Your task to perform on an android device: What's the news in Pakistan? Image 0: 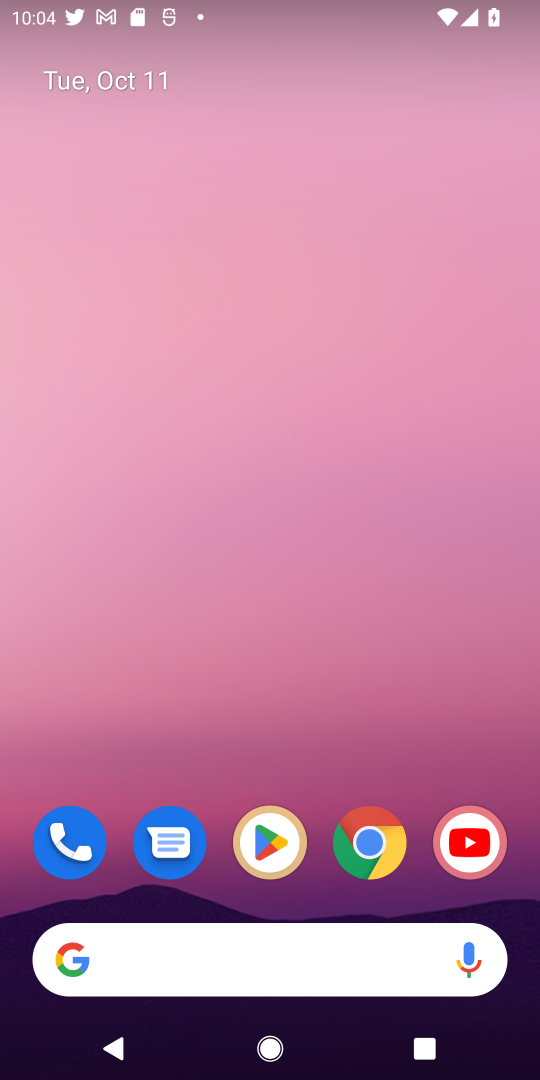
Step 0: click (356, 852)
Your task to perform on an android device: What's the news in Pakistan? Image 1: 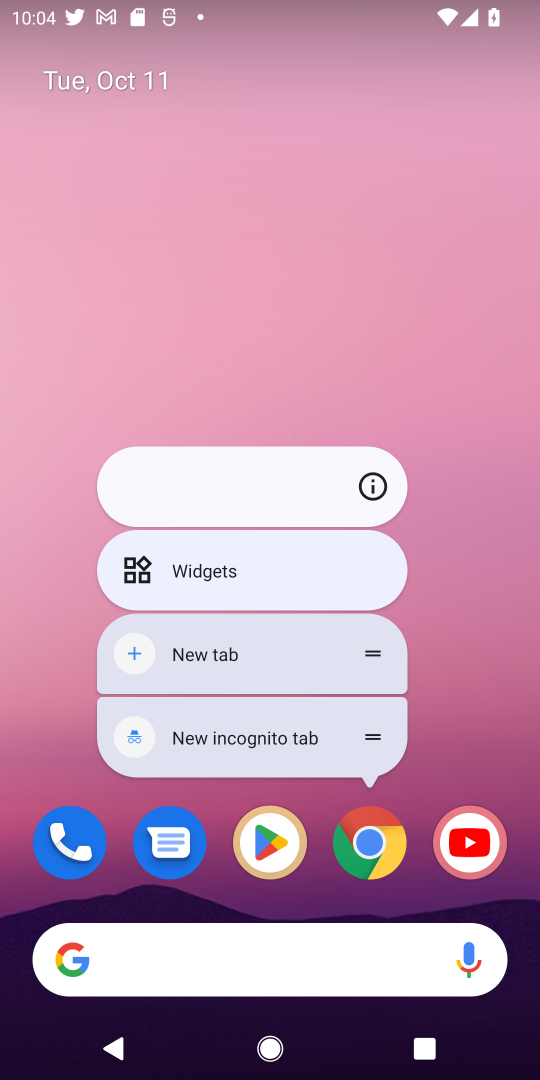
Step 1: click (376, 867)
Your task to perform on an android device: What's the news in Pakistan? Image 2: 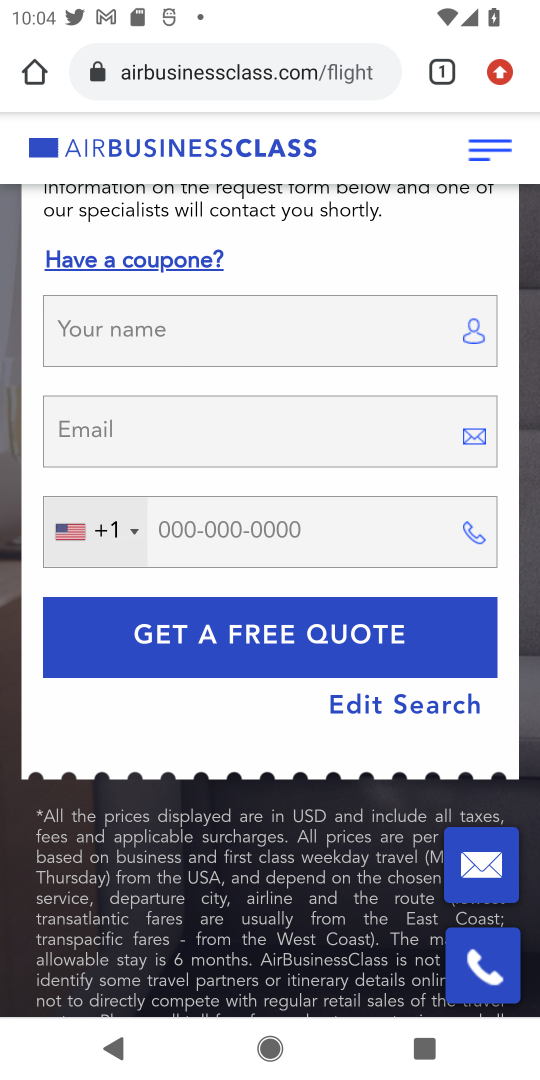
Step 2: click (215, 70)
Your task to perform on an android device: What's the news in Pakistan? Image 3: 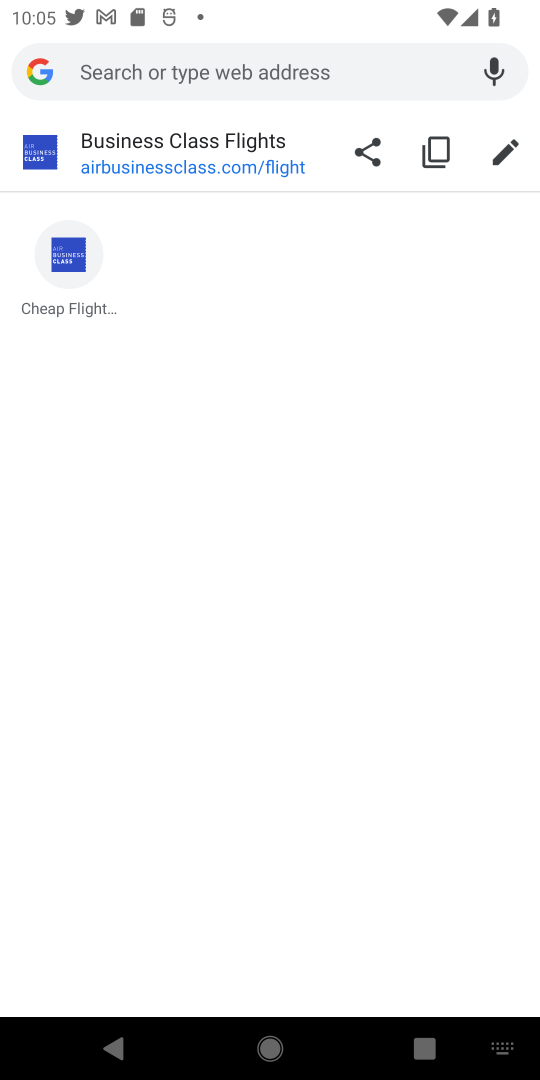
Step 3: type "news in pakistan"
Your task to perform on an android device: What's the news in Pakistan? Image 4: 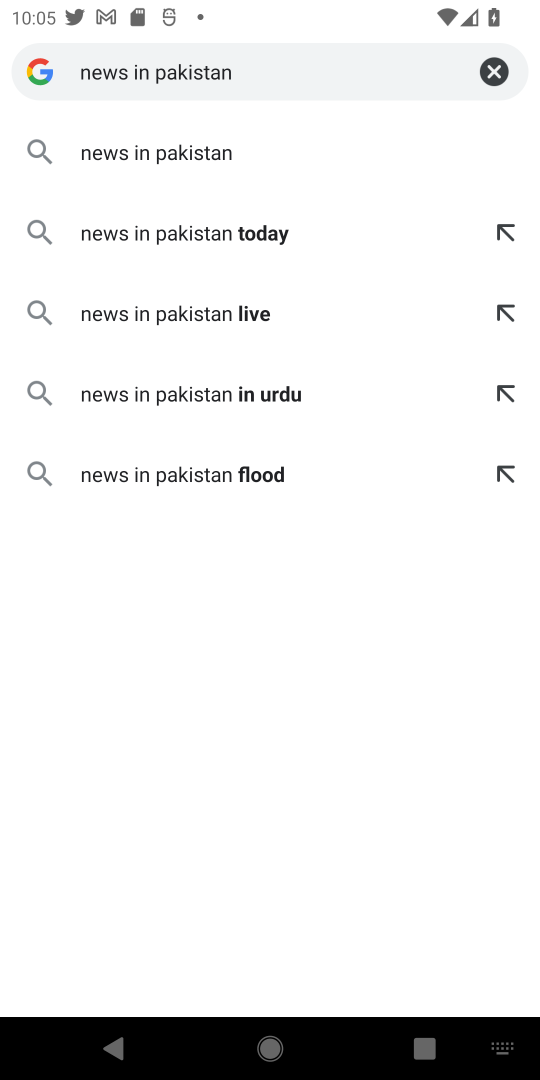
Step 4: click (178, 160)
Your task to perform on an android device: What's the news in Pakistan? Image 5: 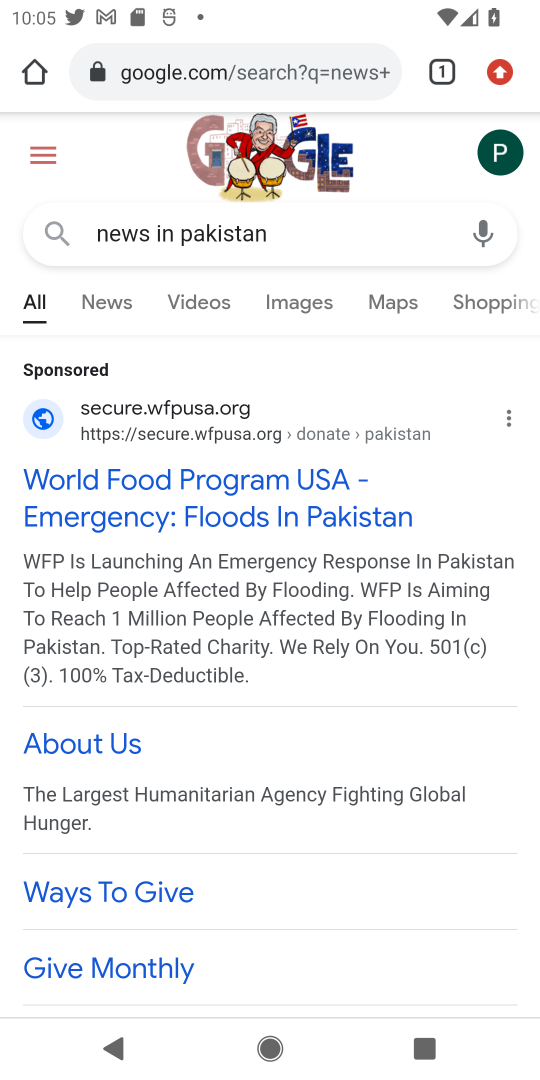
Step 5: drag from (205, 819) to (343, 207)
Your task to perform on an android device: What's the news in Pakistan? Image 6: 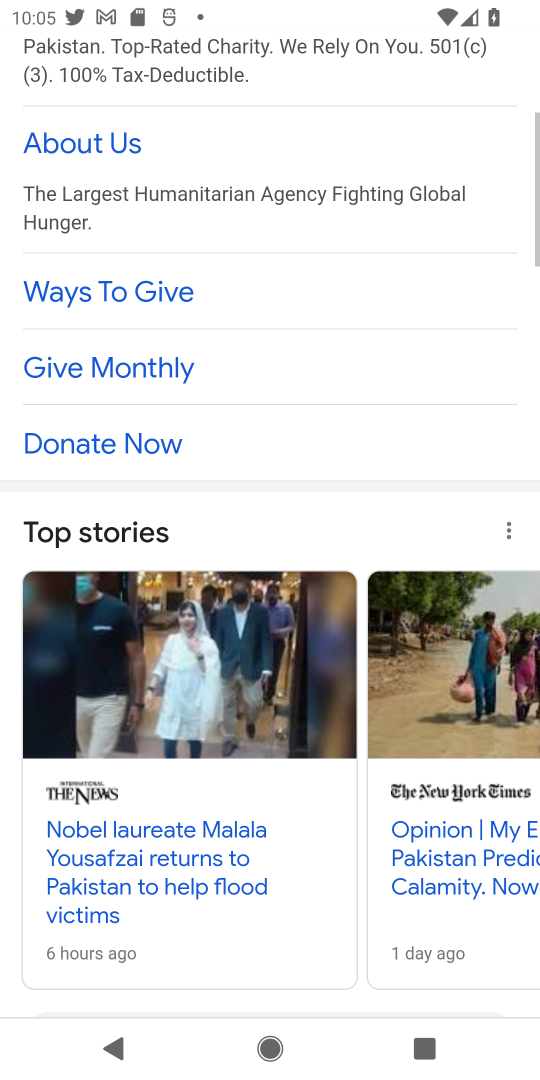
Step 6: drag from (227, 773) to (303, 260)
Your task to perform on an android device: What's the news in Pakistan? Image 7: 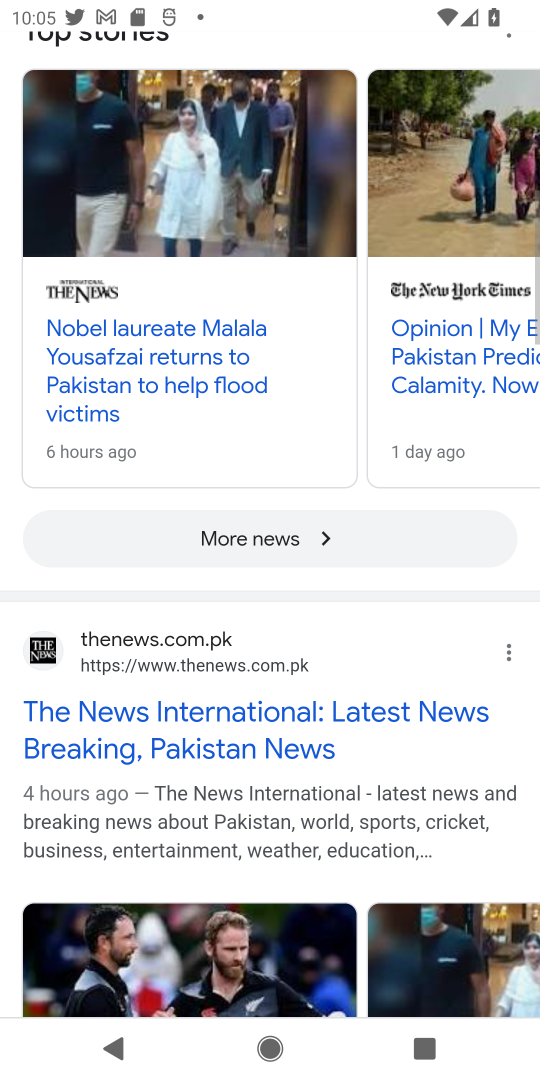
Step 7: drag from (235, 741) to (251, 345)
Your task to perform on an android device: What's the news in Pakistan? Image 8: 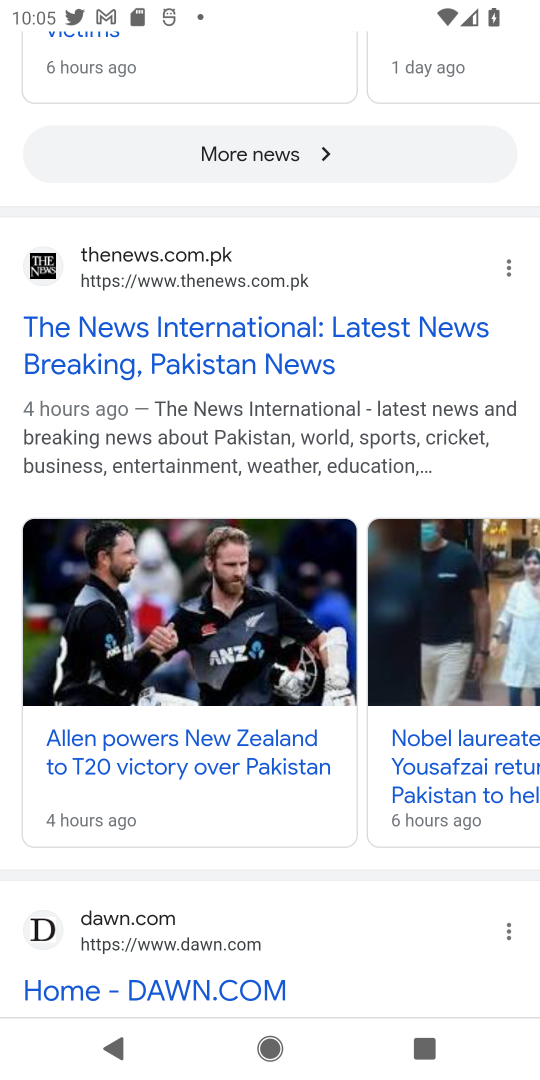
Step 8: click (210, 323)
Your task to perform on an android device: What's the news in Pakistan? Image 9: 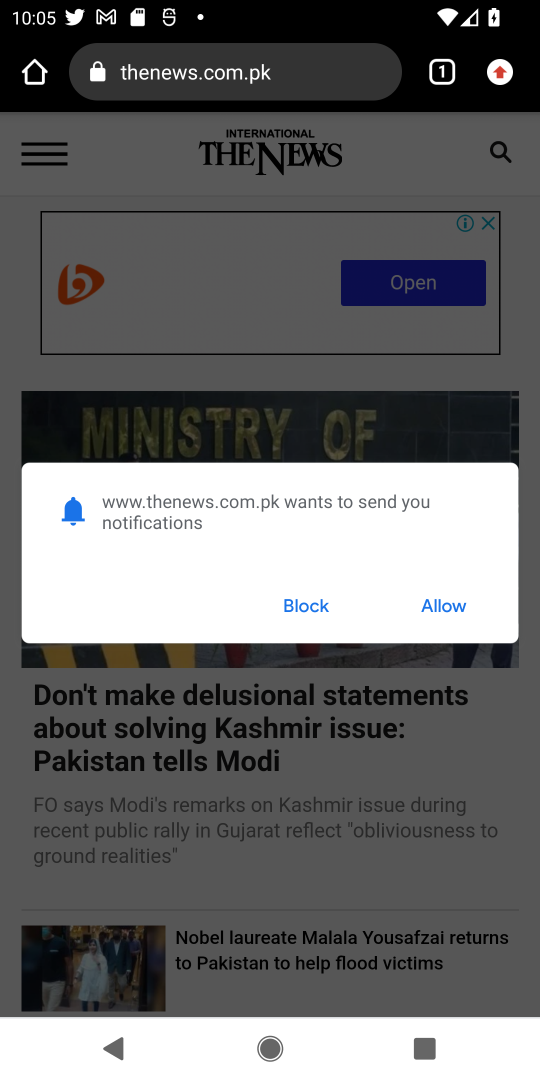
Step 9: click (443, 601)
Your task to perform on an android device: What's the news in Pakistan? Image 10: 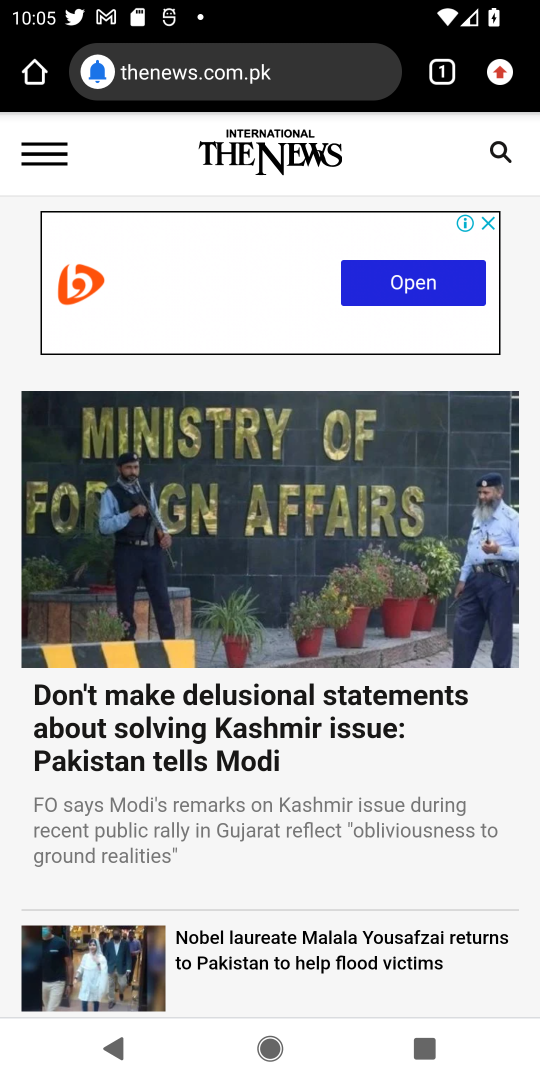
Step 10: click (484, 218)
Your task to perform on an android device: What's the news in Pakistan? Image 11: 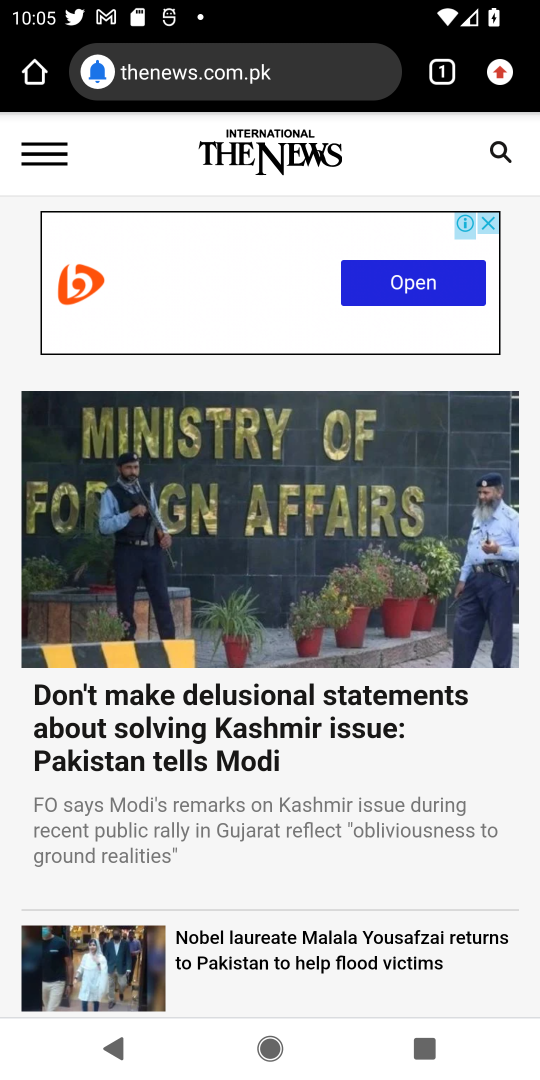
Step 11: drag from (280, 790) to (341, 374)
Your task to perform on an android device: What's the news in Pakistan? Image 12: 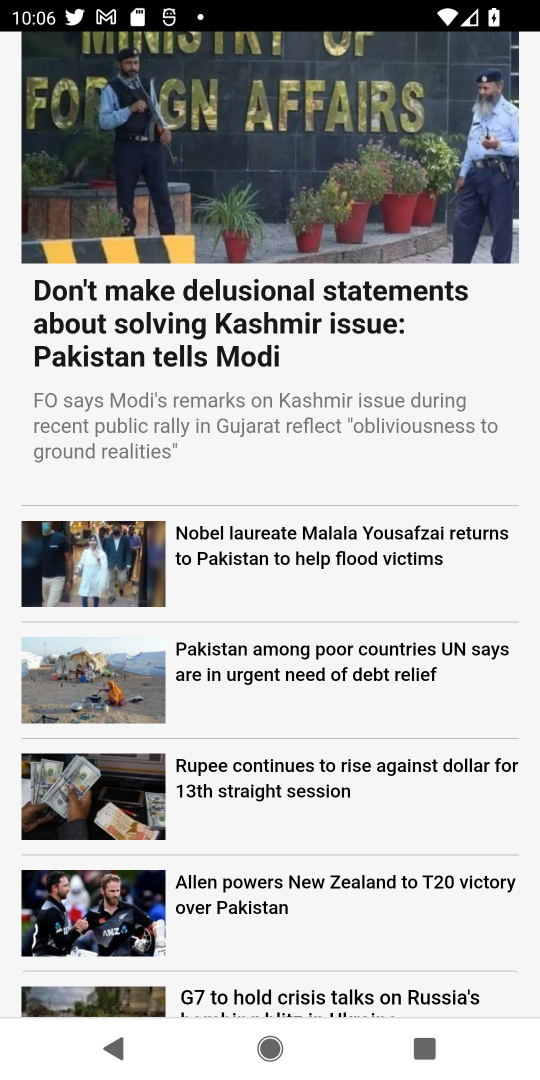
Step 12: click (230, 286)
Your task to perform on an android device: What's the news in Pakistan? Image 13: 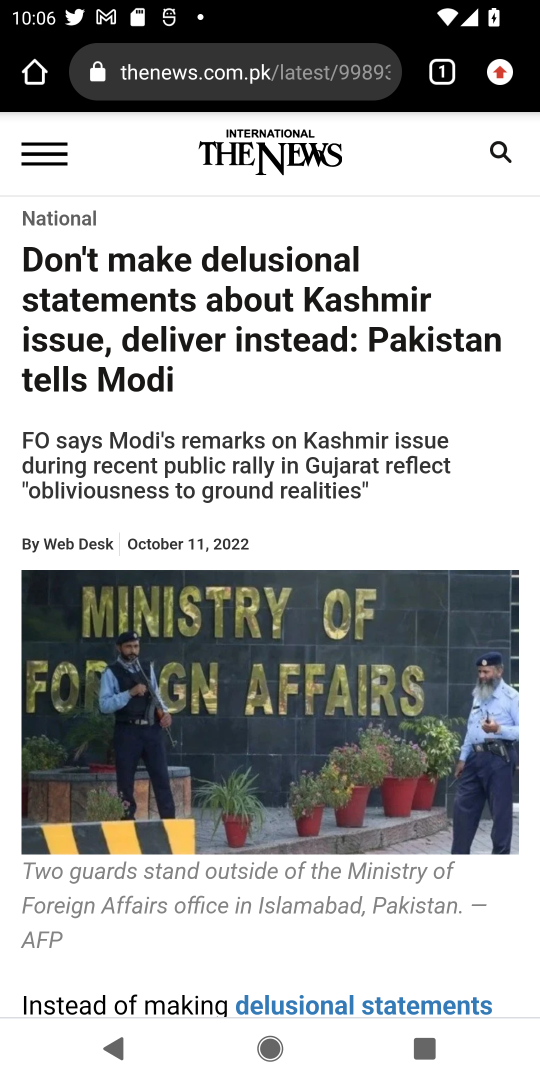
Step 13: task complete